Your task to perform on an android device: Show the shopping cart on amazon. Search for razer huntsman on amazon, select the first entry, and add it to the cart. Image 0: 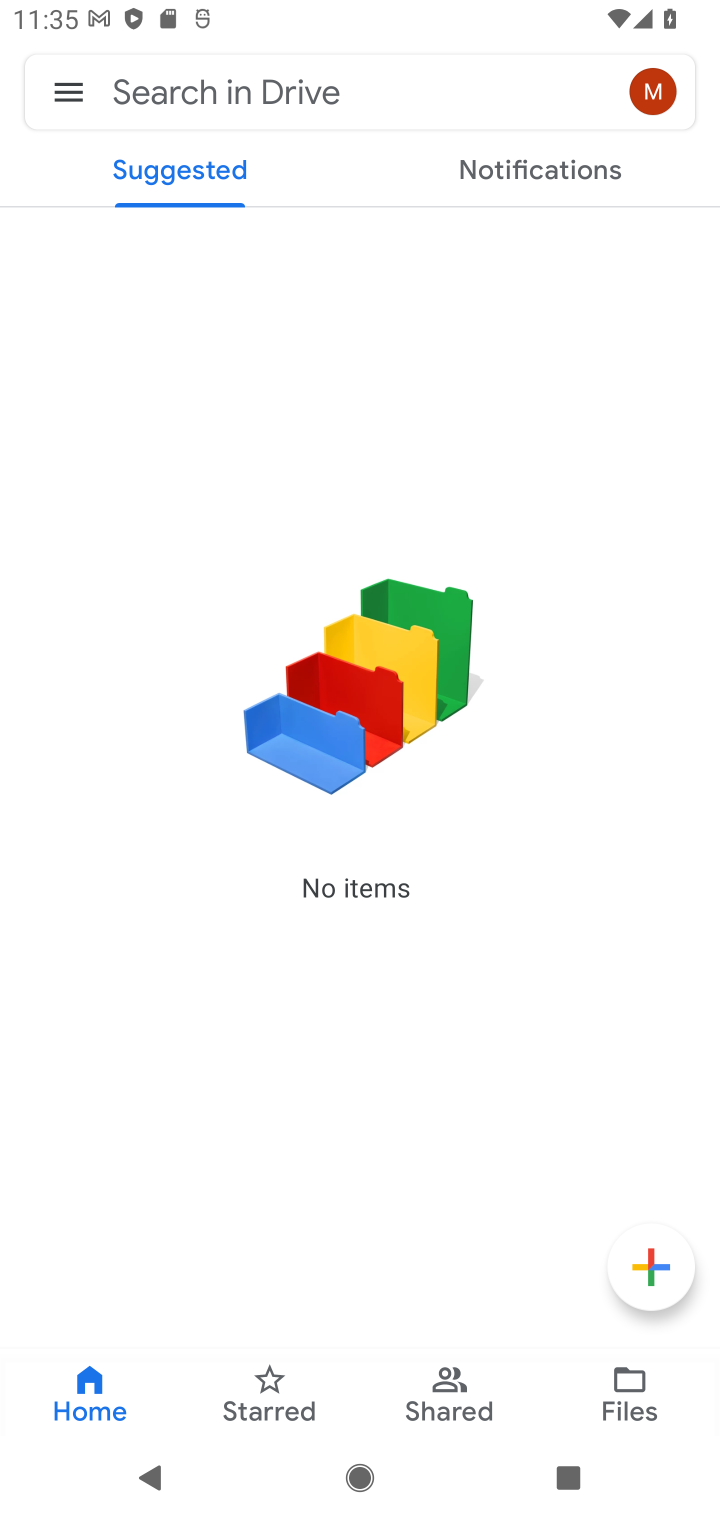
Step 0: press home button
Your task to perform on an android device: Show the shopping cart on amazon. Search for razer huntsman on amazon, select the first entry, and add it to the cart. Image 1: 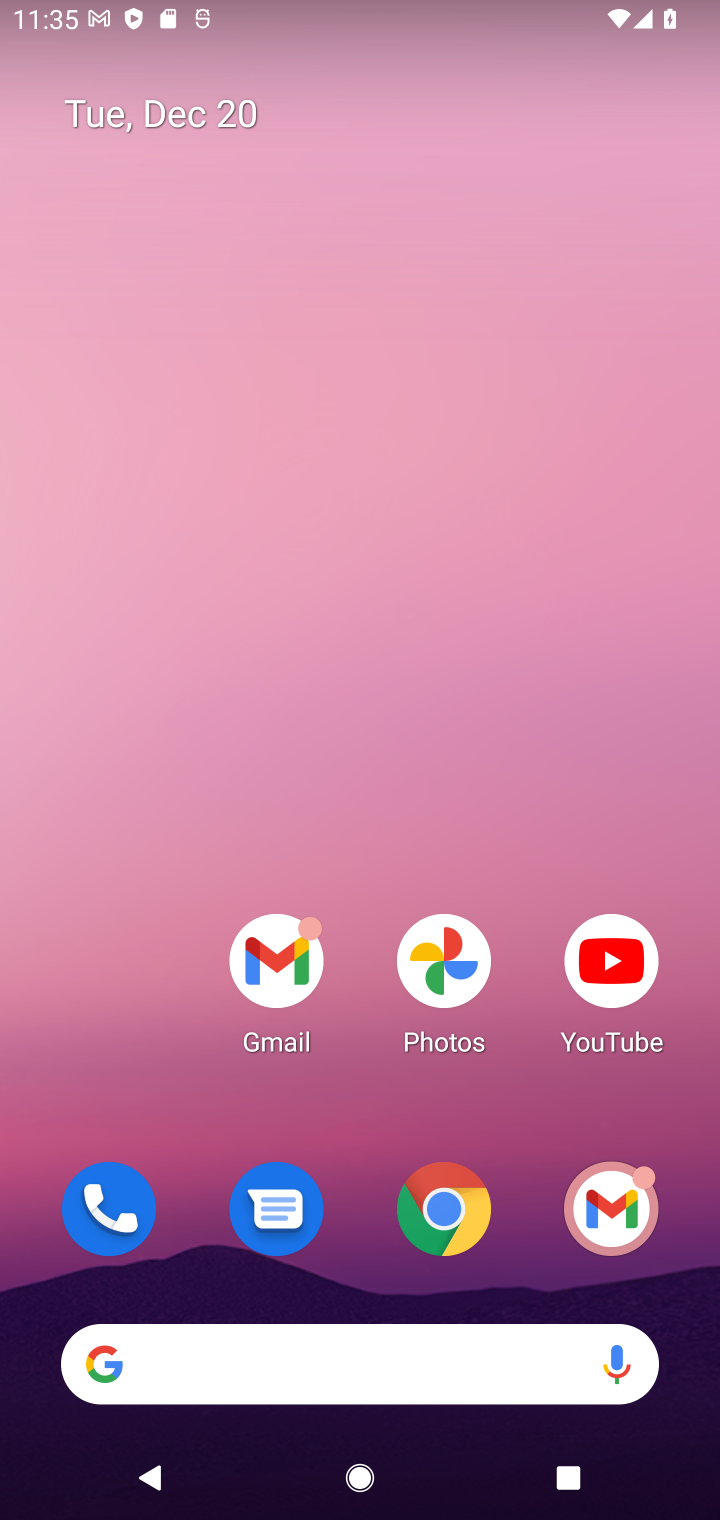
Step 1: click (435, 1223)
Your task to perform on an android device: Show the shopping cart on amazon. Search for razer huntsman on amazon, select the first entry, and add it to the cart. Image 2: 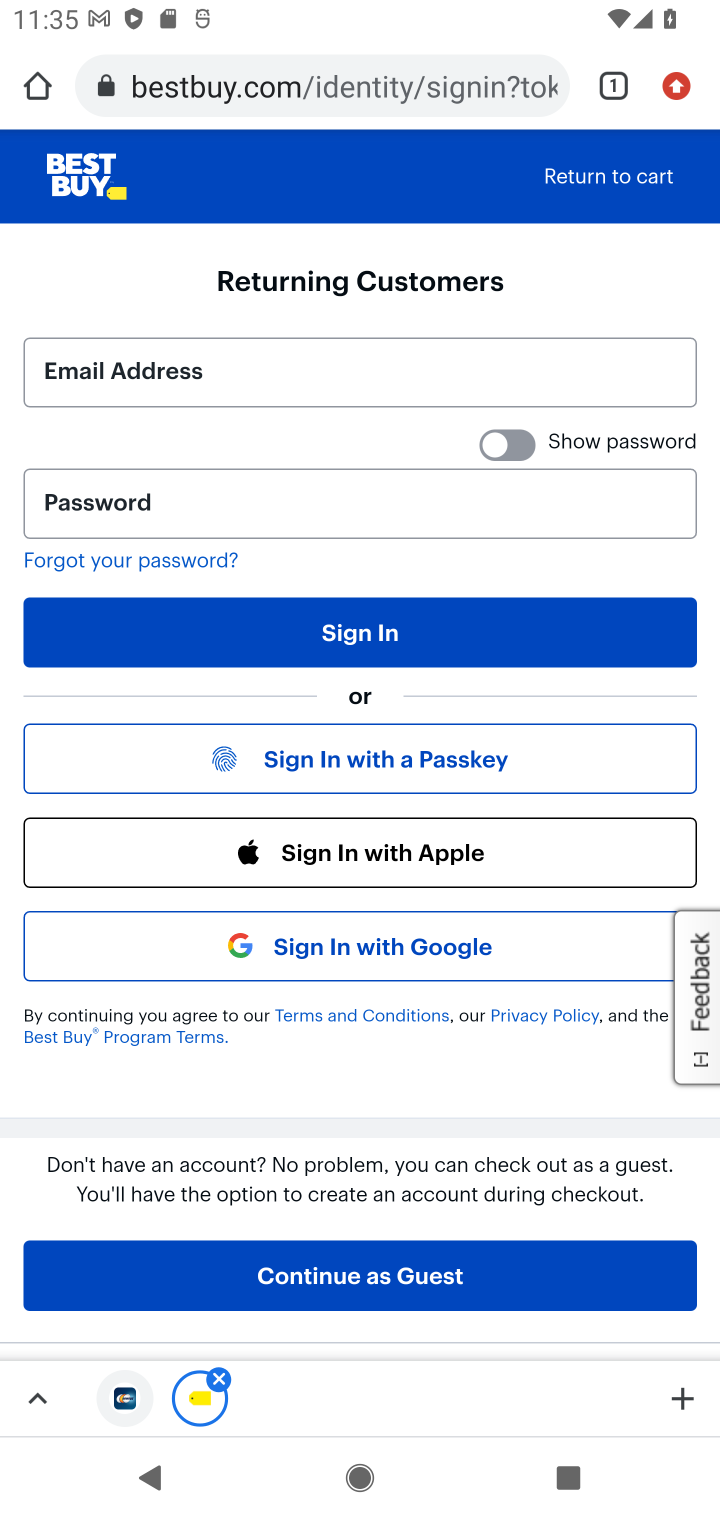
Step 2: click (275, 91)
Your task to perform on an android device: Show the shopping cart on amazon. Search for razer huntsman on amazon, select the first entry, and add it to the cart. Image 3: 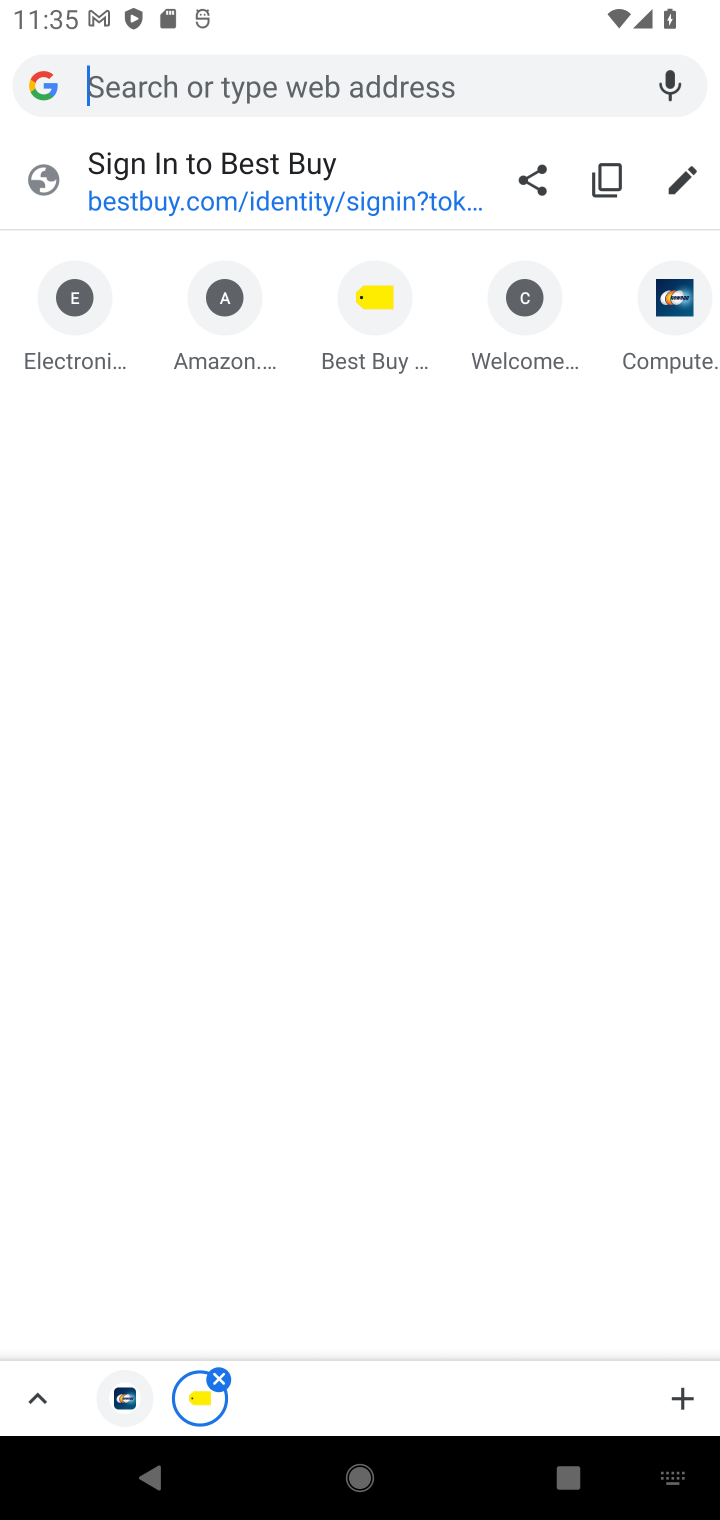
Step 3: click (223, 311)
Your task to perform on an android device: Show the shopping cart on amazon. Search for razer huntsman on amazon, select the first entry, and add it to the cart. Image 4: 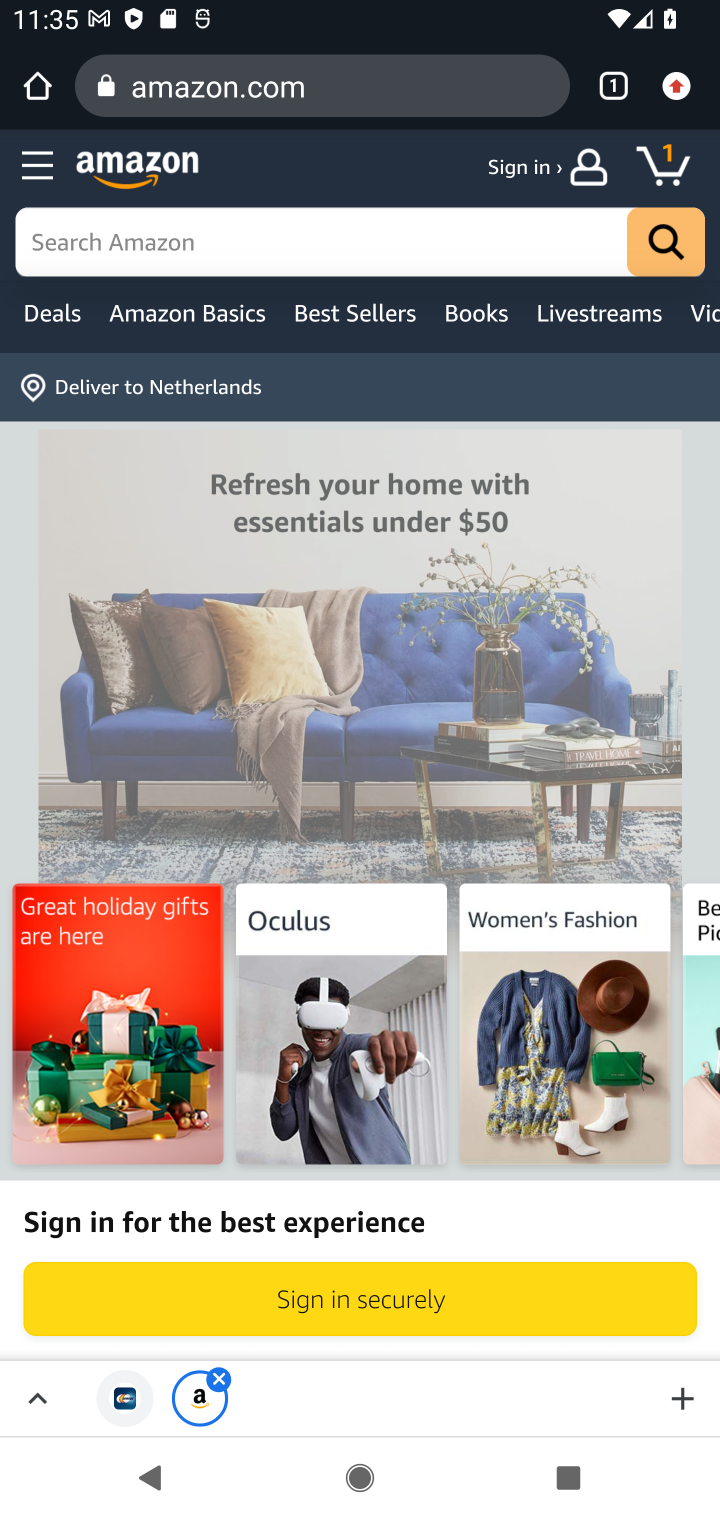
Step 4: click (674, 184)
Your task to perform on an android device: Show the shopping cart on amazon. Search for razer huntsman on amazon, select the first entry, and add it to the cart. Image 5: 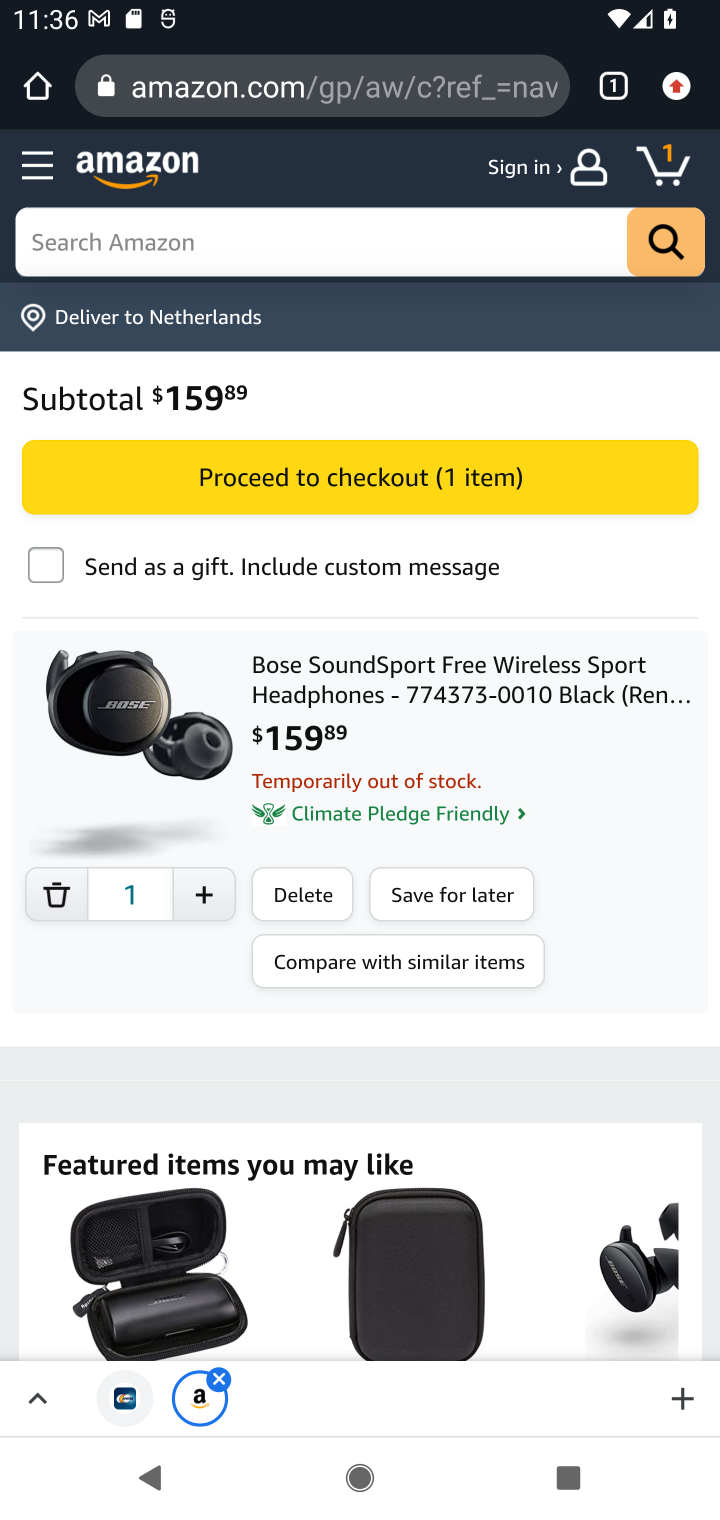
Step 5: click (149, 248)
Your task to perform on an android device: Show the shopping cart on amazon. Search for razer huntsman on amazon, select the first entry, and add it to the cart. Image 6: 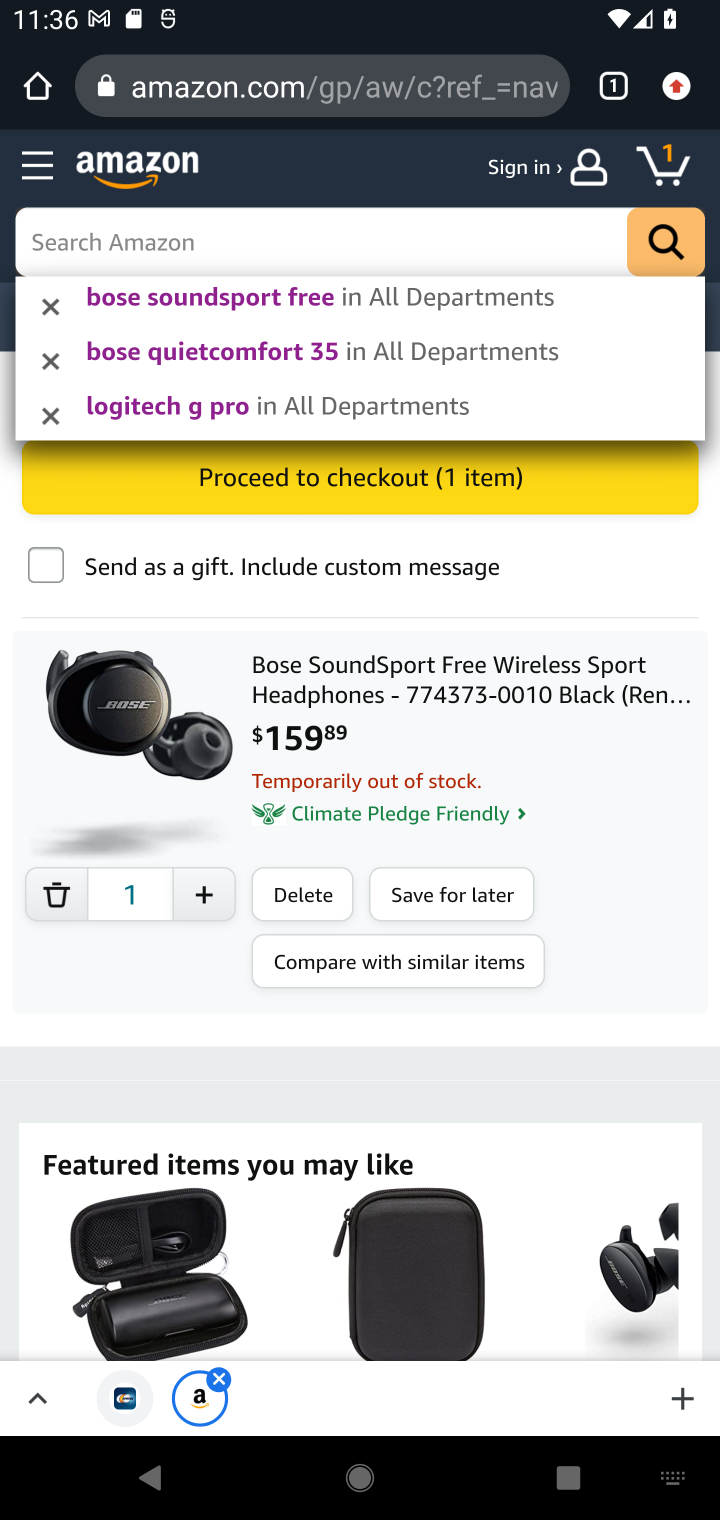
Step 6: type "razer huntsman"
Your task to perform on an android device: Show the shopping cart on amazon. Search for razer huntsman on amazon, select the first entry, and add it to the cart. Image 7: 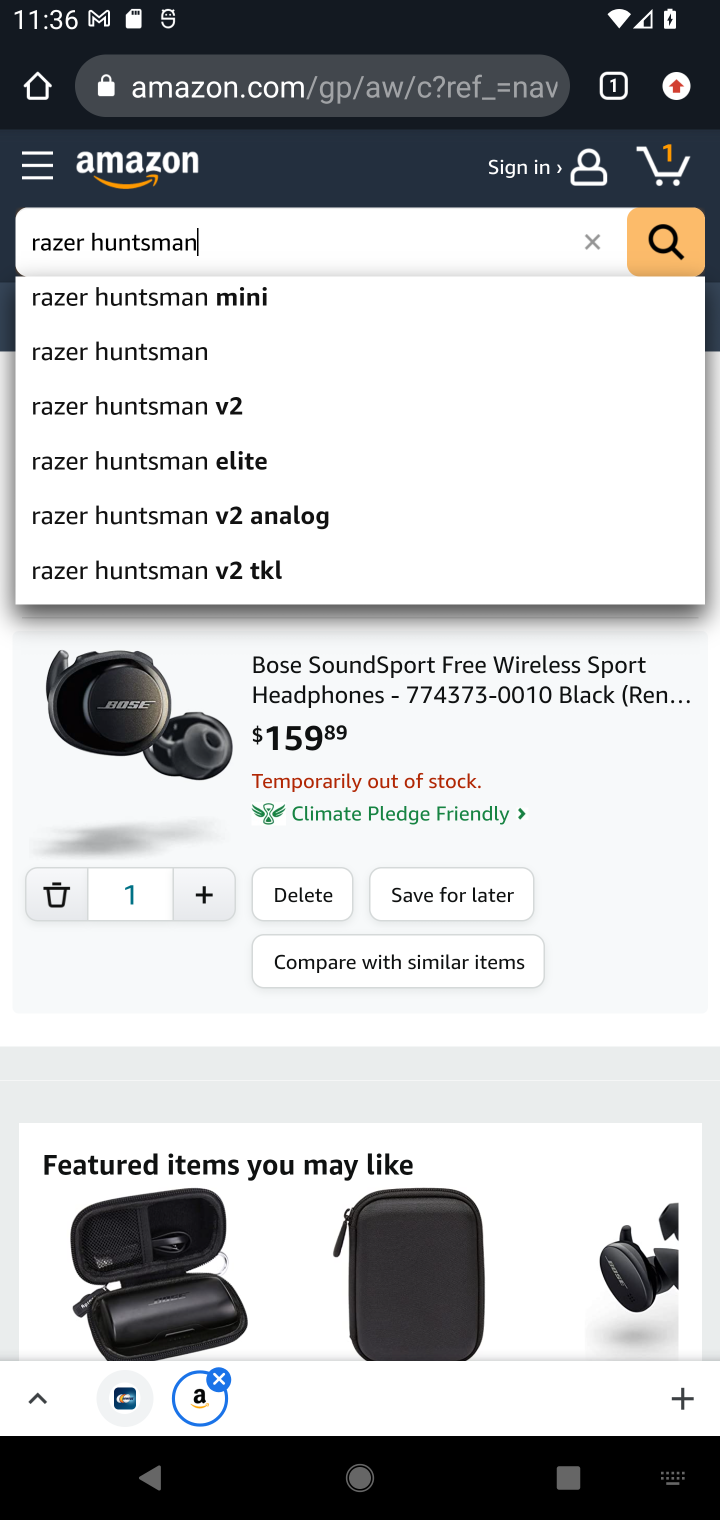
Step 7: click (105, 357)
Your task to perform on an android device: Show the shopping cart on amazon. Search for razer huntsman on amazon, select the first entry, and add it to the cart. Image 8: 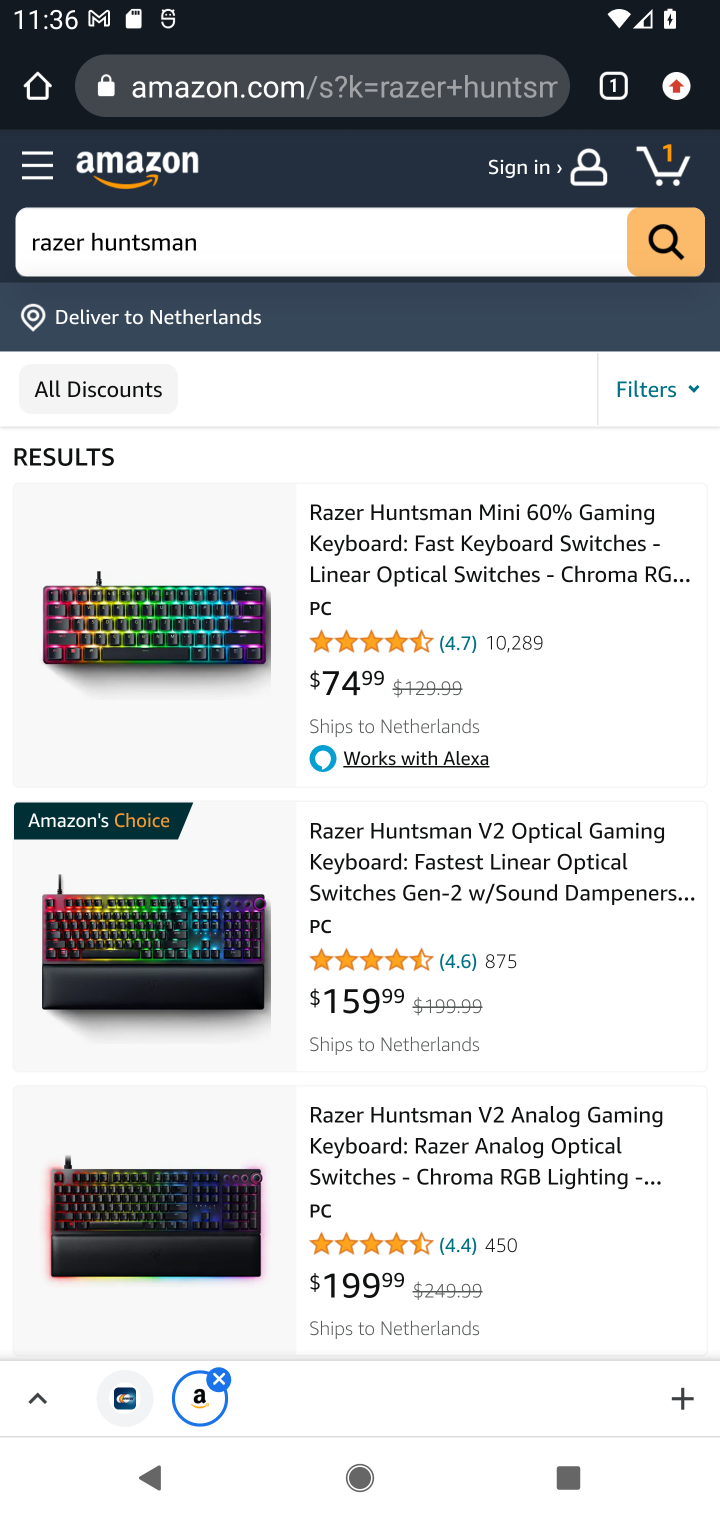
Step 8: click (371, 547)
Your task to perform on an android device: Show the shopping cart on amazon. Search for razer huntsman on amazon, select the first entry, and add it to the cart. Image 9: 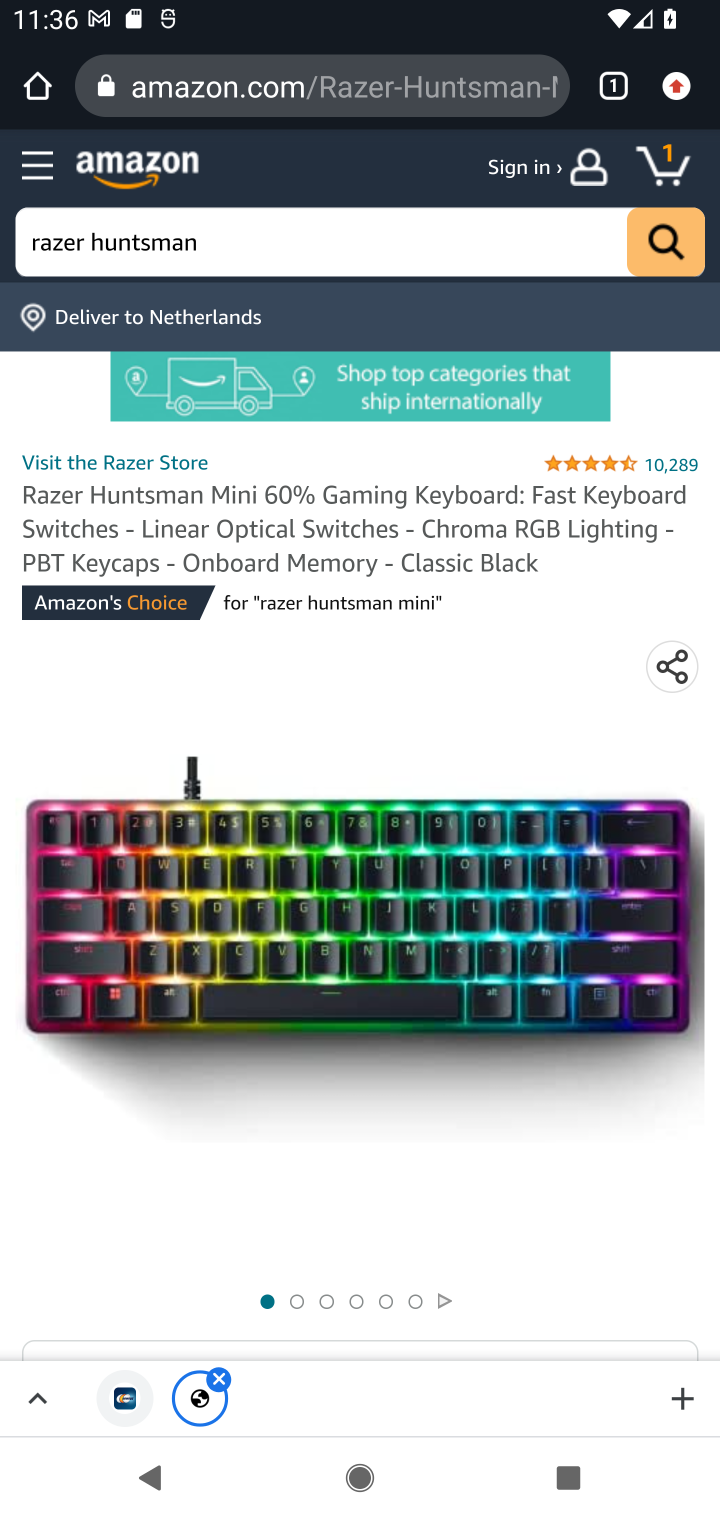
Step 9: drag from (323, 740) to (342, 223)
Your task to perform on an android device: Show the shopping cart on amazon. Search for razer huntsman on amazon, select the first entry, and add it to the cart. Image 10: 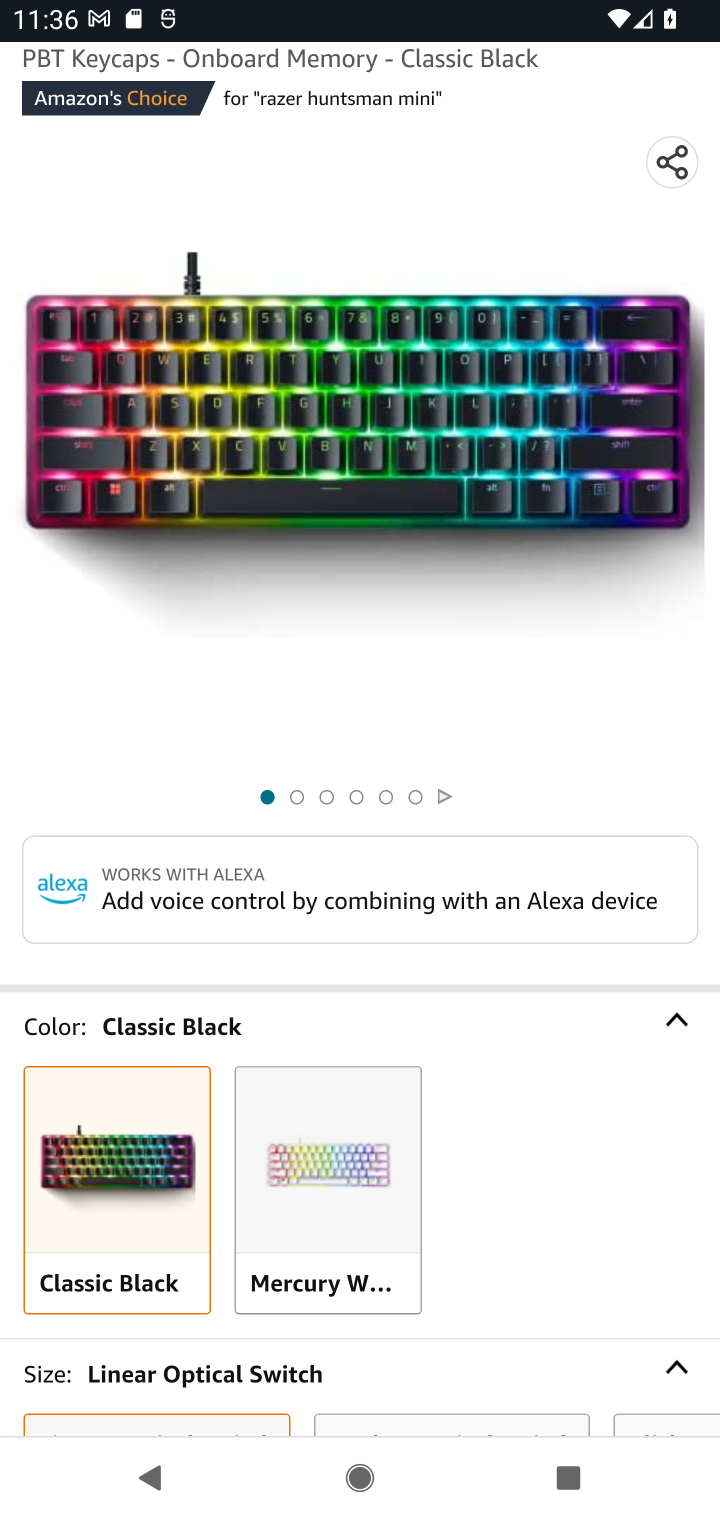
Step 10: drag from (385, 1014) to (345, 554)
Your task to perform on an android device: Show the shopping cart on amazon. Search for razer huntsman on amazon, select the first entry, and add it to the cart. Image 11: 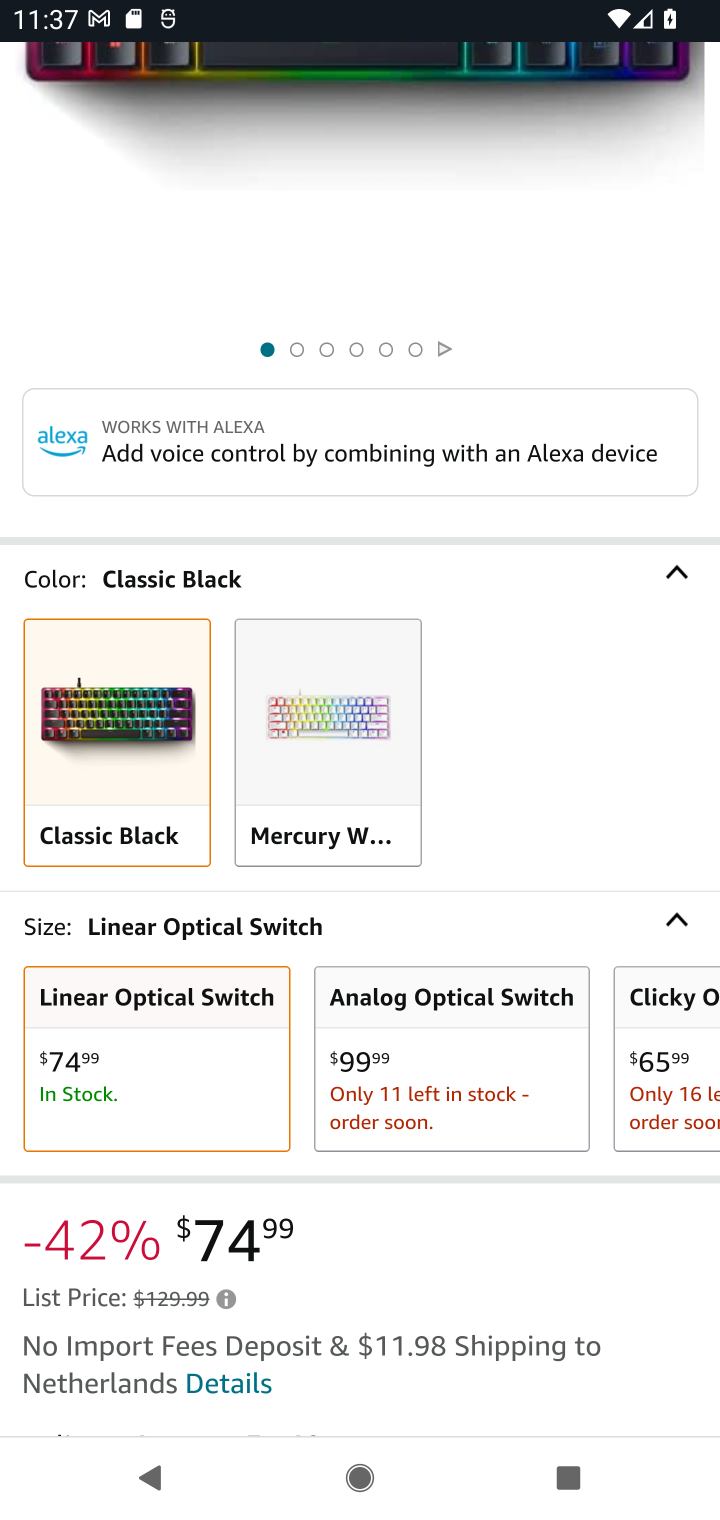
Step 11: drag from (345, 1315) to (376, 819)
Your task to perform on an android device: Show the shopping cart on amazon. Search for razer huntsman on amazon, select the first entry, and add it to the cart. Image 12: 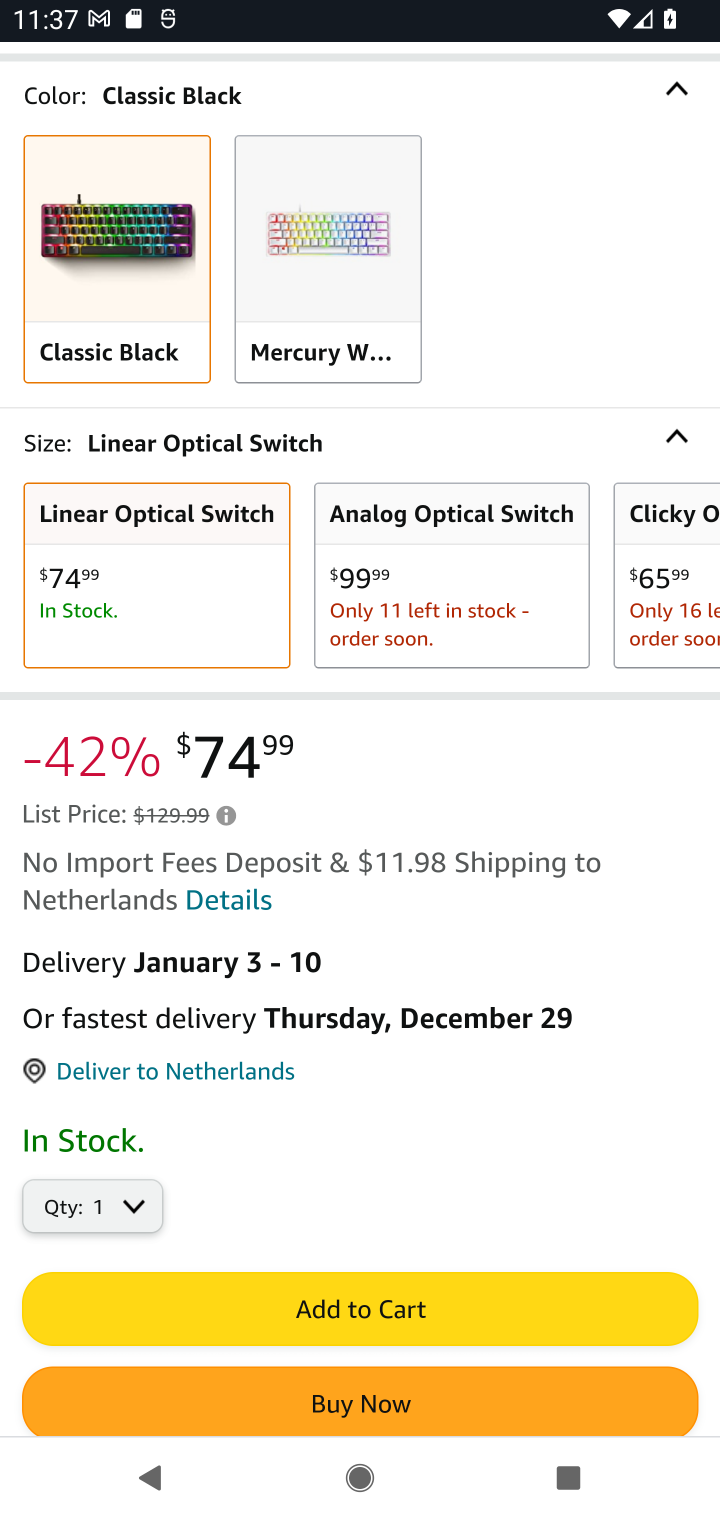
Step 12: click (331, 1300)
Your task to perform on an android device: Show the shopping cart on amazon. Search for razer huntsman on amazon, select the first entry, and add it to the cart. Image 13: 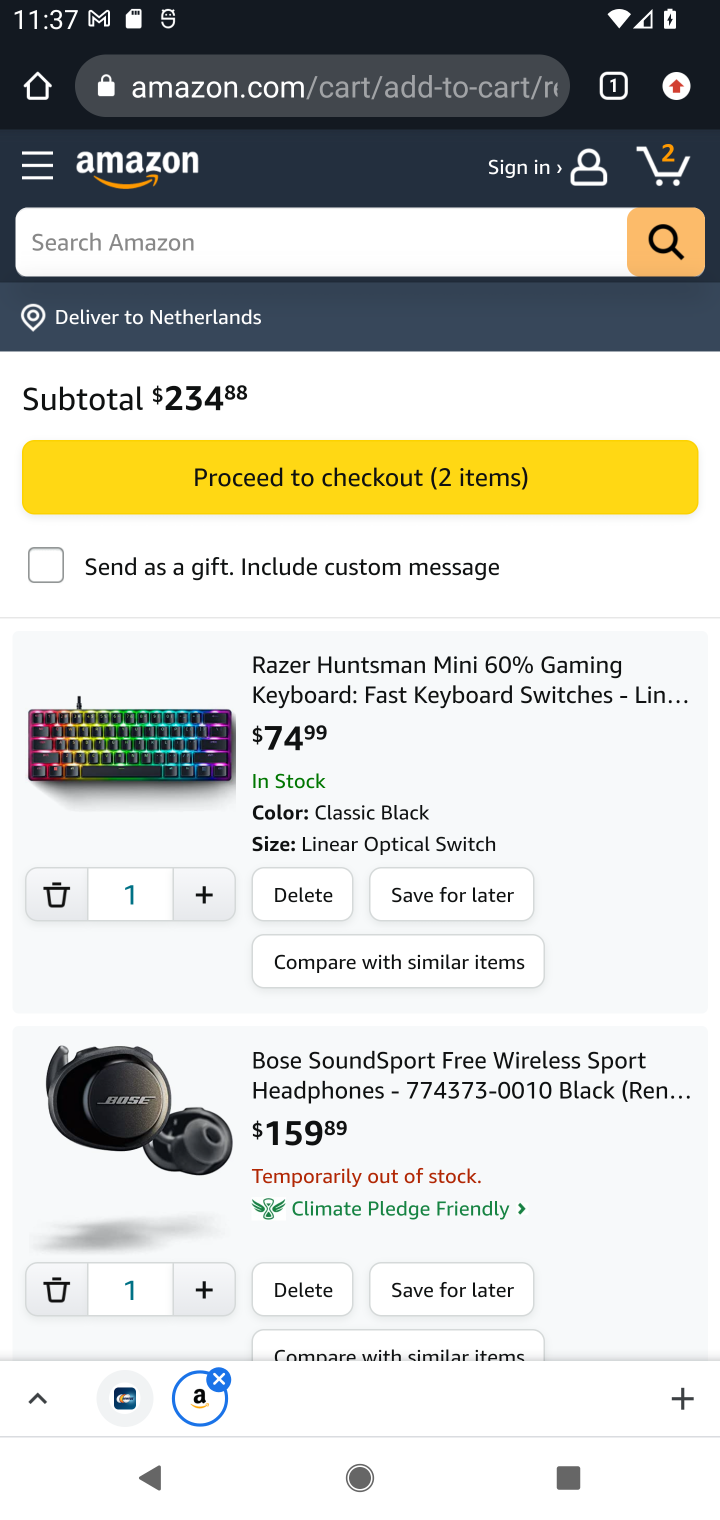
Step 13: task complete